Your task to perform on an android device: Go to Maps Image 0: 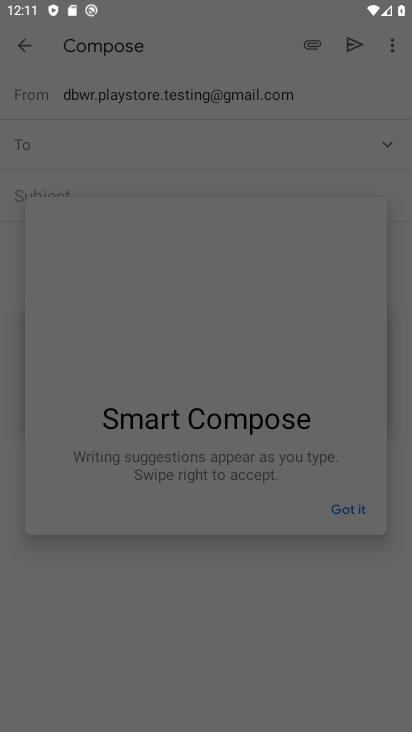
Step 0: press home button
Your task to perform on an android device: Go to Maps Image 1: 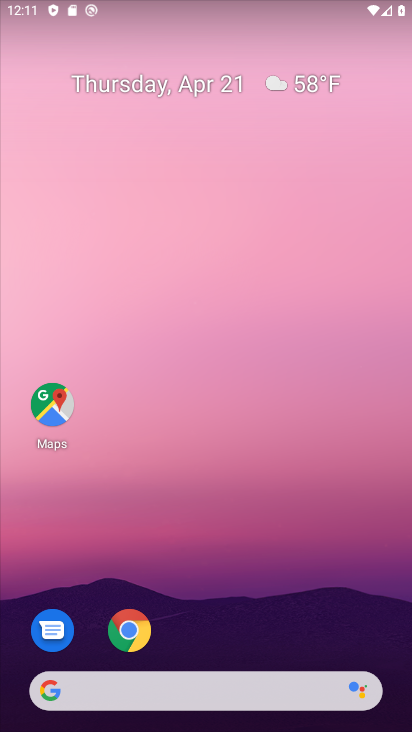
Step 1: drag from (148, 689) to (340, 76)
Your task to perform on an android device: Go to Maps Image 2: 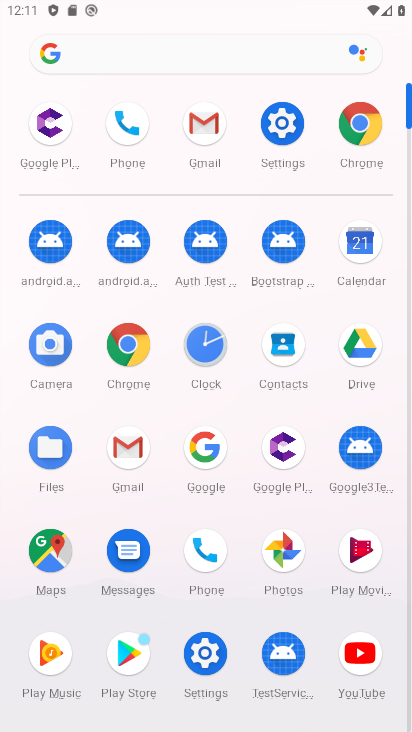
Step 2: click (49, 553)
Your task to perform on an android device: Go to Maps Image 3: 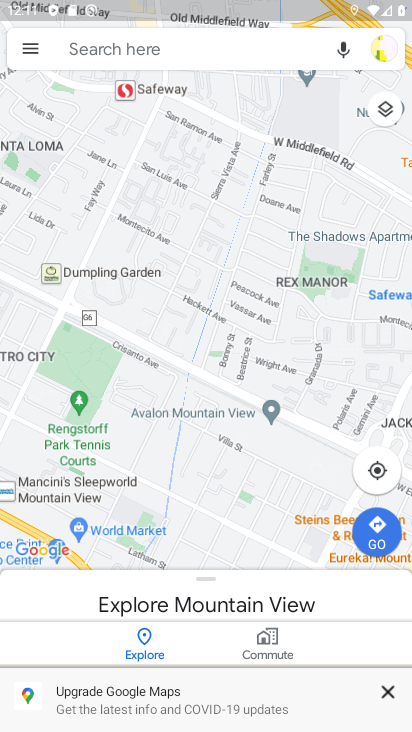
Step 3: task complete